Your task to perform on an android device: Go to settings Image 0: 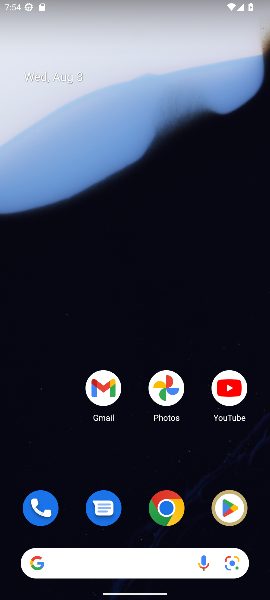
Step 0: click (129, 566)
Your task to perform on an android device: Go to settings Image 1: 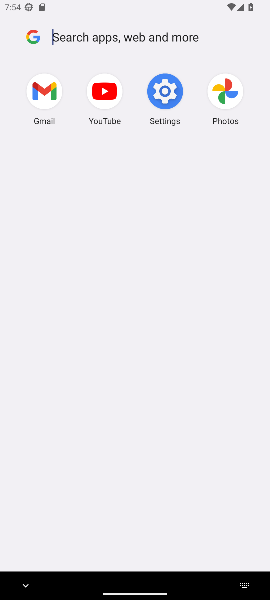
Step 1: click (168, 101)
Your task to perform on an android device: Go to settings Image 2: 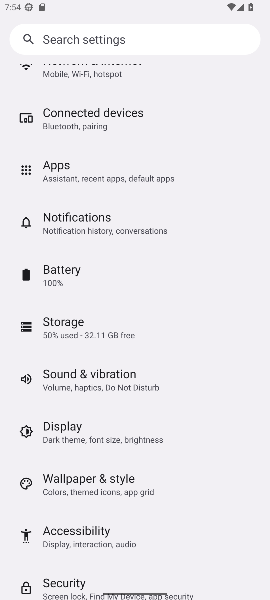
Step 2: task complete